Your task to perform on an android device: Open Youtube and go to "Your channel" Image 0: 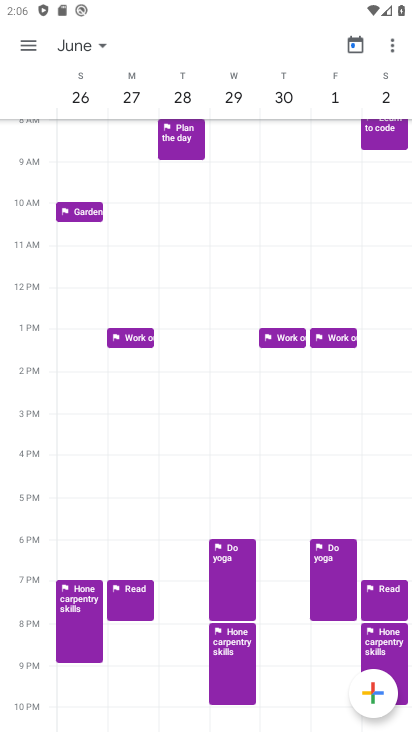
Step 0: press home button
Your task to perform on an android device: Open Youtube and go to "Your channel" Image 1: 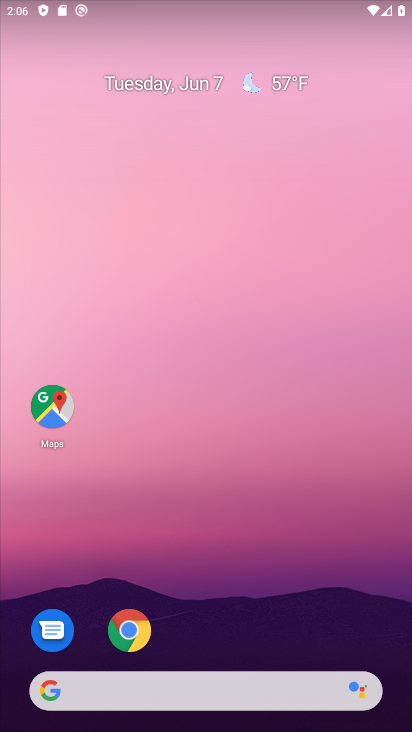
Step 1: drag from (398, 665) to (326, 91)
Your task to perform on an android device: Open Youtube and go to "Your channel" Image 2: 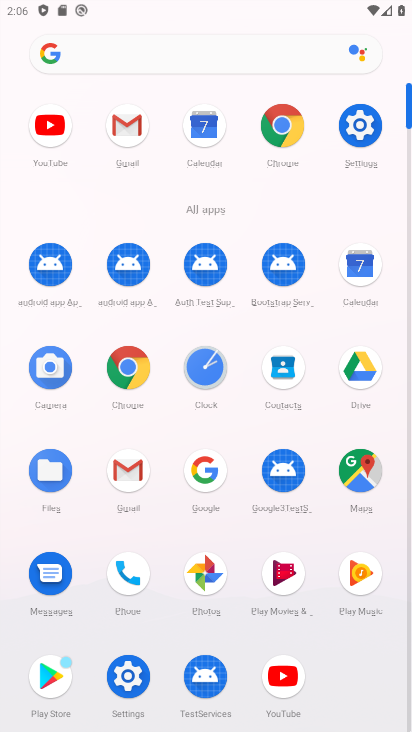
Step 2: click (58, 129)
Your task to perform on an android device: Open Youtube and go to "Your channel" Image 3: 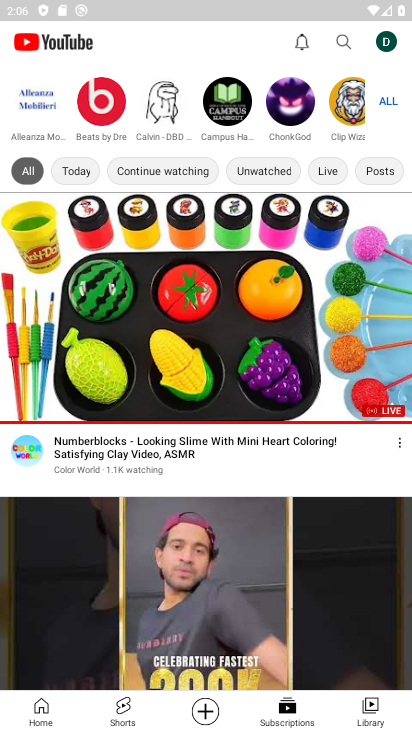
Step 3: click (389, 99)
Your task to perform on an android device: Open Youtube and go to "Your channel" Image 4: 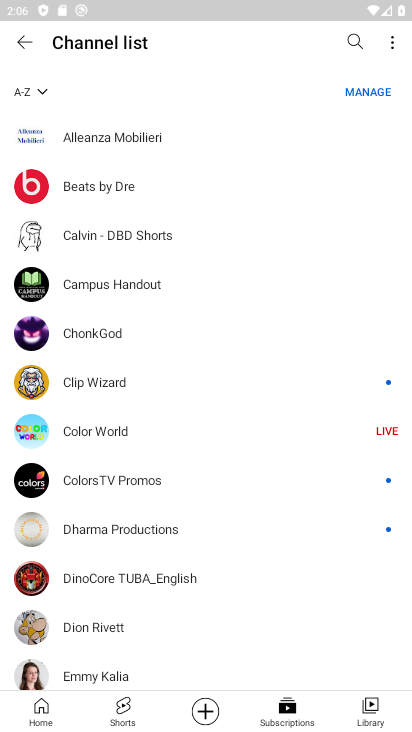
Step 4: click (27, 37)
Your task to perform on an android device: Open Youtube and go to "Your channel" Image 5: 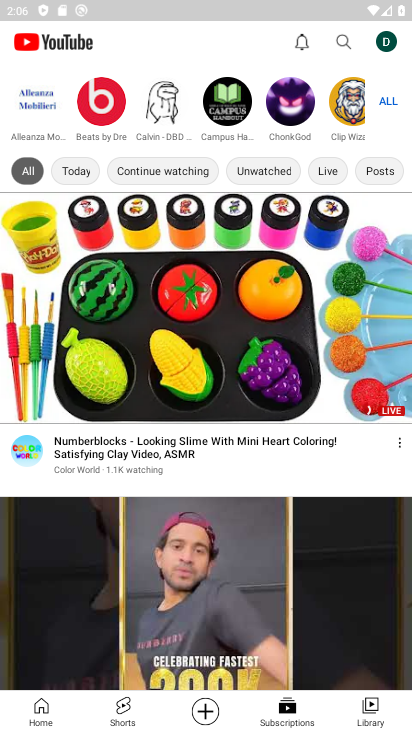
Step 5: click (386, 45)
Your task to perform on an android device: Open Youtube and go to "Your channel" Image 6: 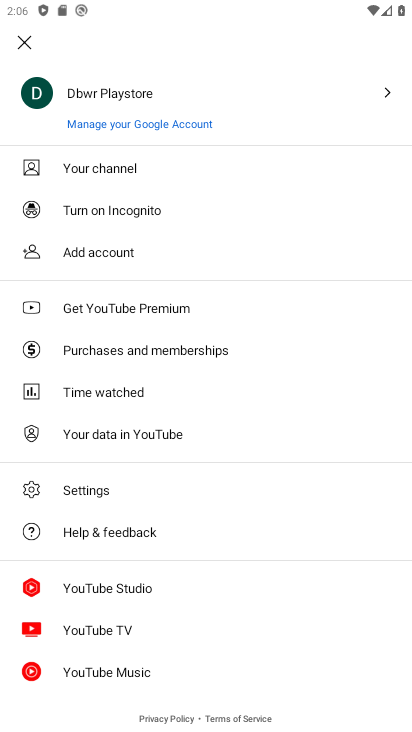
Step 6: click (104, 168)
Your task to perform on an android device: Open Youtube and go to "Your channel" Image 7: 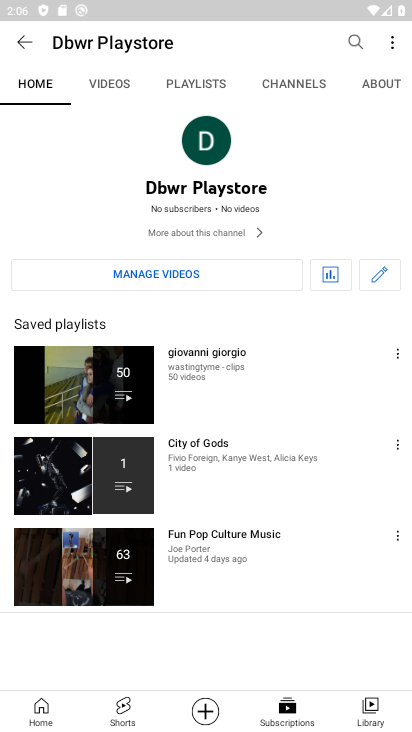
Step 7: task complete